Your task to perform on an android device: toggle show notifications on the lock screen Image 0: 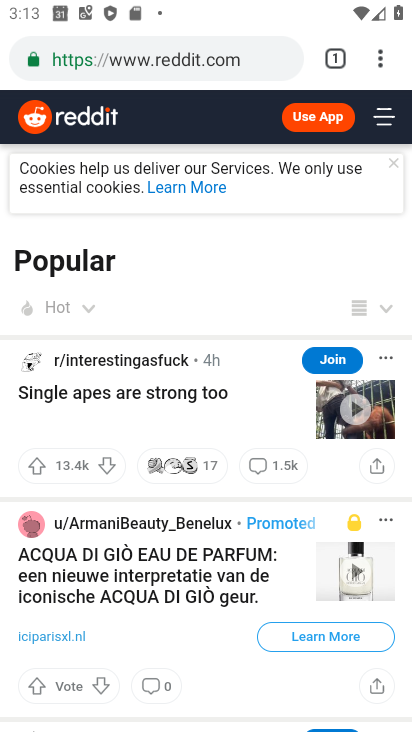
Step 0: press home button
Your task to perform on an android device: toggle show notifications on the lock screen Image 1: 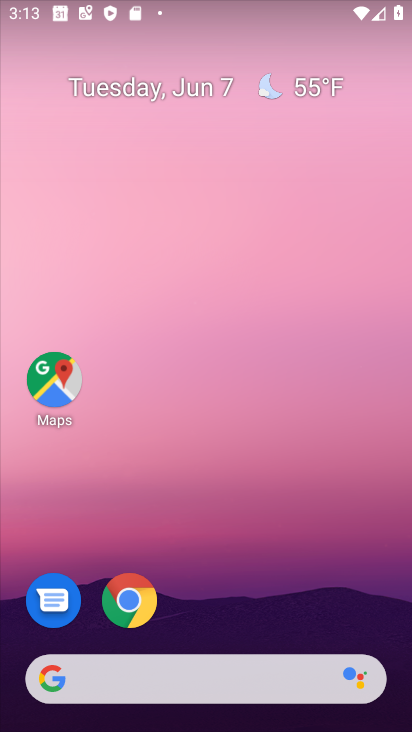
Step 1: drag from (208, 642) to (210, 102)
Your task to perform on an android device: toggle show notifications on the lock screen Image 2: 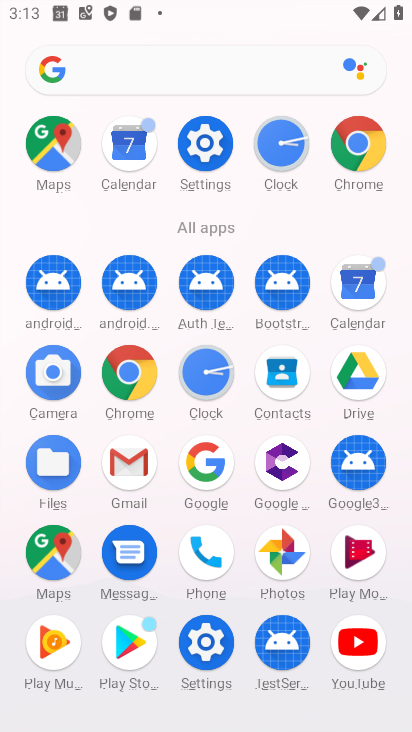
Step 2: click (219, 150)
Your task to perform on an android device: toggle show notifications on the lock screen Image 3: 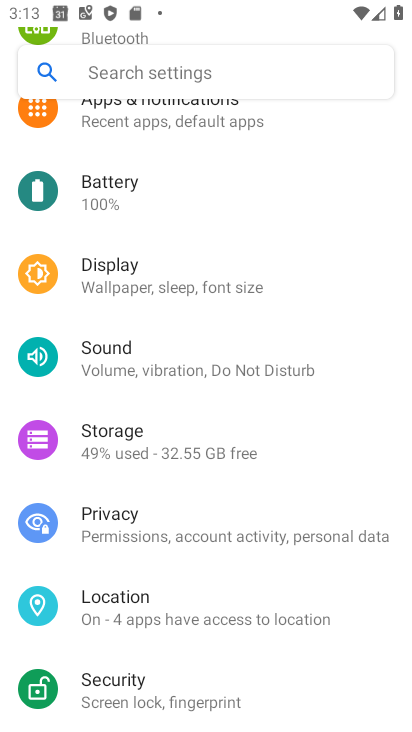
Step 3: click (129, 113)
Your task to perform on an android device: toggle show notifications on the lock screen Image 4: 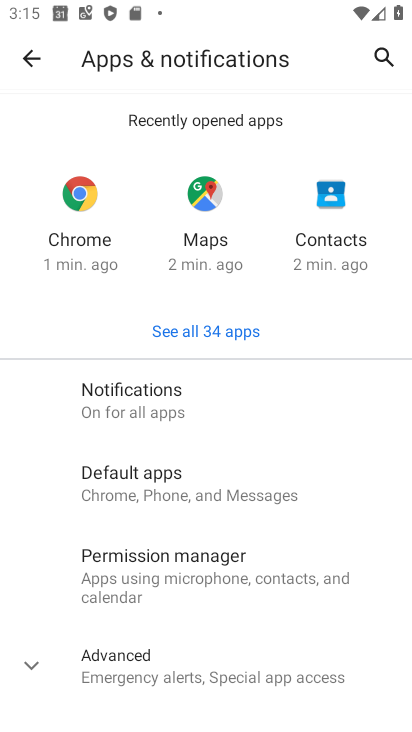
Step 4: click (103, 397)
Your task to perform on an android device: toggle show notifications on the lock screen Image 5: 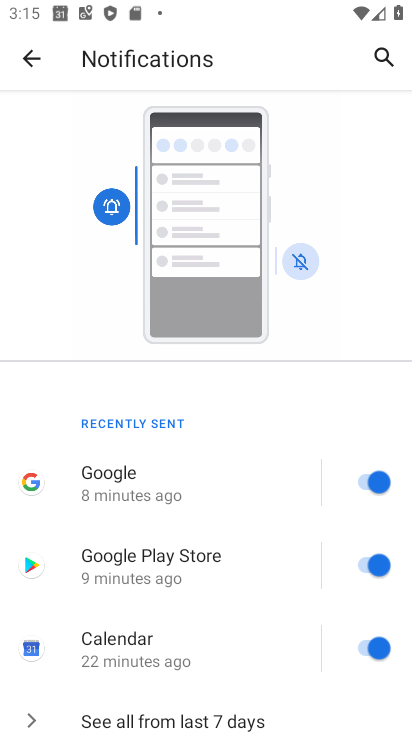
Step 5: drag from (161, 629) to (164, 201)
Your task to perform on an android device: toggle show notifications on the lock screen Image 6: 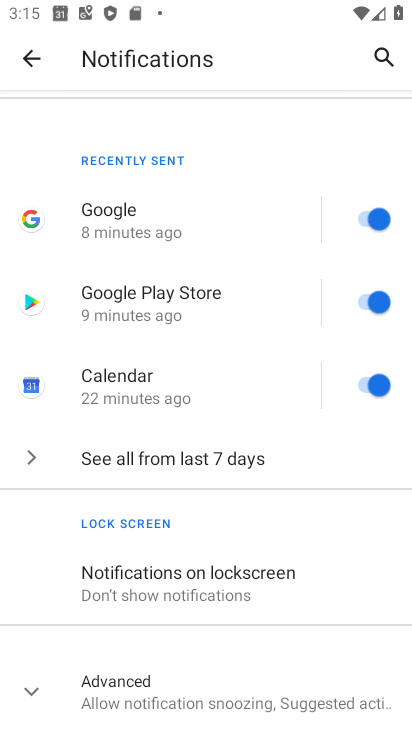
Step 6: click (178, 602)
Your task to perform on an android device: toggle show notifications on the lock screen Image 7: 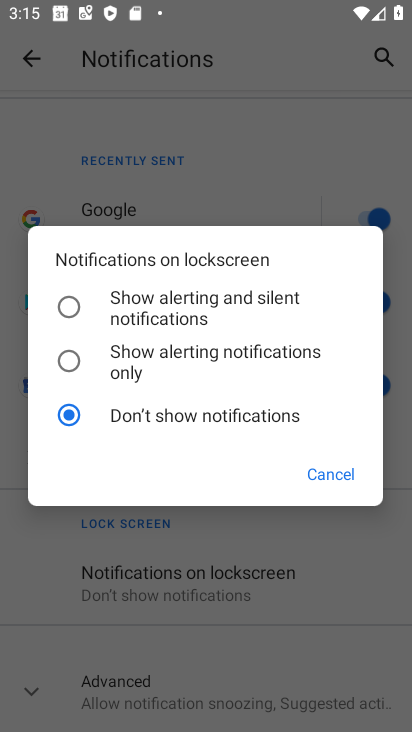
Step 7: click (66, 301)
Your task to perform on an android device: toggle show notifications on the lock screen Image 8: 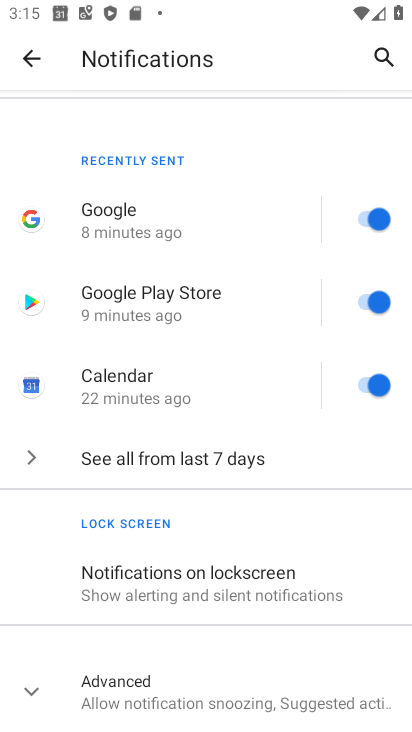
Step 8: task complete